Your task to perform on an android device: Go to calendar. Show me events next week Image 0: 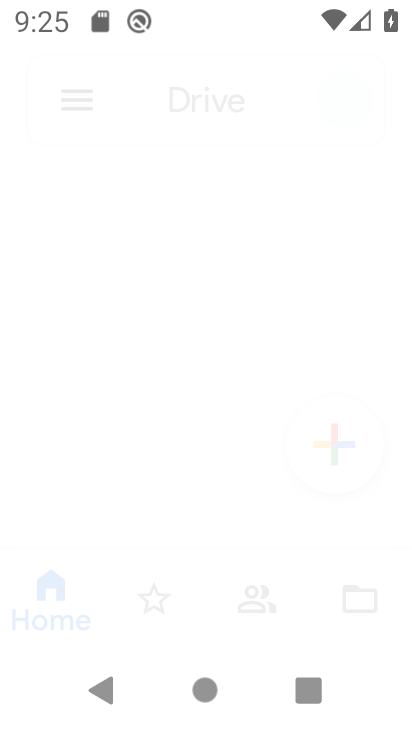
Step 0: drag from (365, 543) to (329, 175)
Your task to perform on an android device: Go to calendar. Show me events next week Image 1: 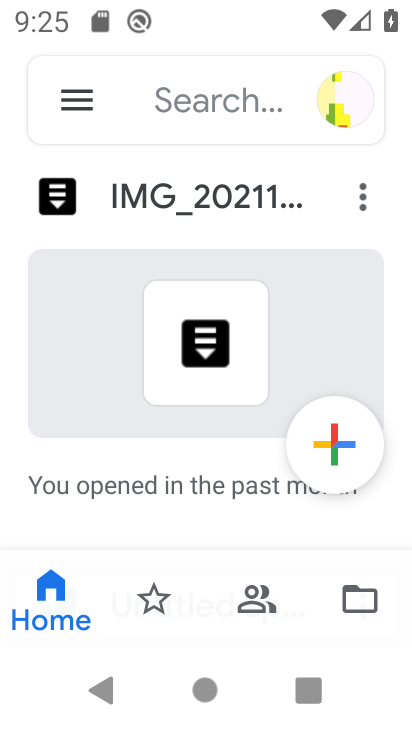
Step 1: press home button
Your task to perform on an android device: Go to calendar. Show me events next week Image 2: 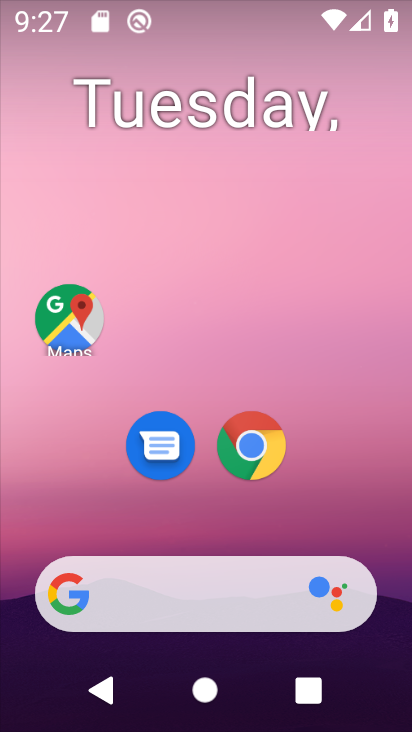
Step 2: drag from (31, 224) to (384, 147)
Your task to perform on an android device: Go to calendar. Show me events next week Image 3: 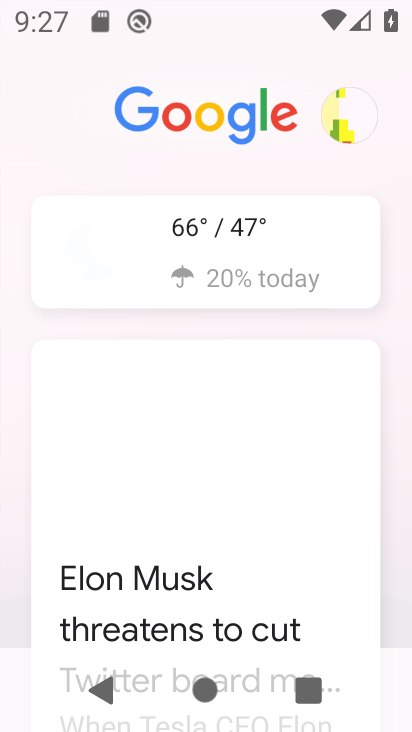
Step 3: press back button
Your task to perform on an android device: Go to calendar. Show me events next week Image 4: 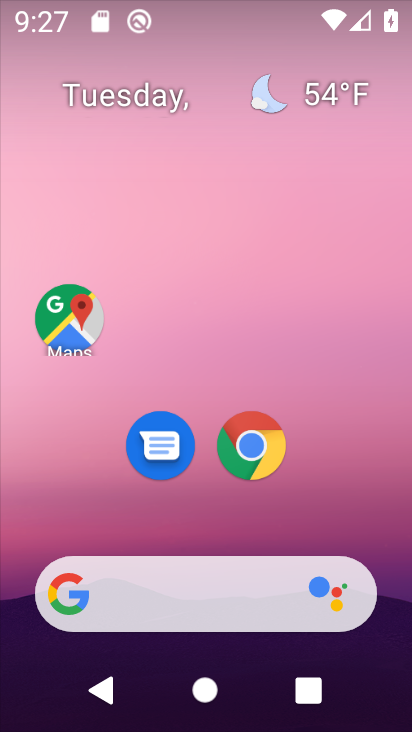
Step 4: drag from (5, 233) to (369, 270)
Your task to perform on an android device: Go to calendar. Show me events next week Image 5: 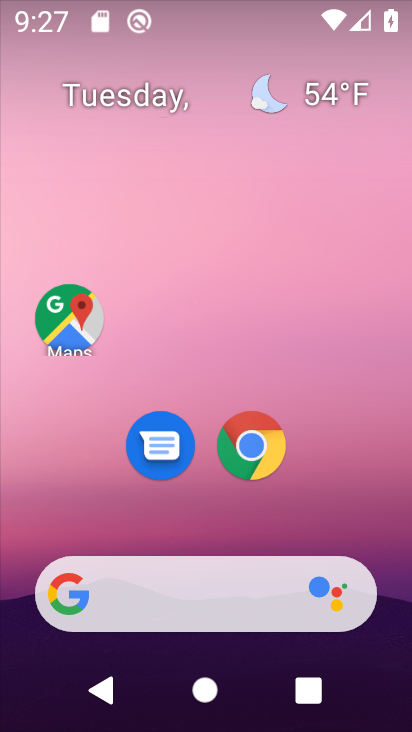
Step 5: click (401, 227)
Your task to perform on an android device: Go to calendar. Show me events next week Image 6: 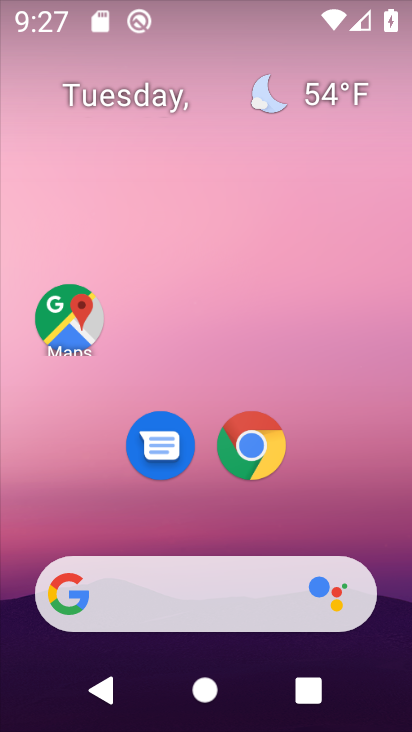
Step 6: drag from (382, 372) to (365, 94)
Your task to perform on an android device: Go to calendar. Show me events next week Image 7: 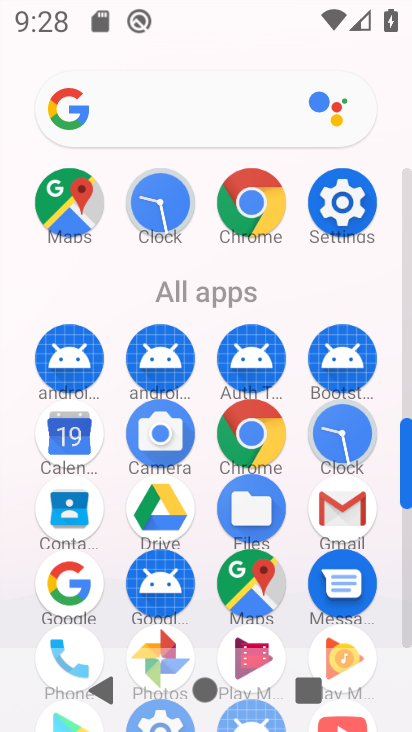
Step 7: click (62, 436)
Your task to perform on an android device: Go to calendar. Show me events next week Image 8: 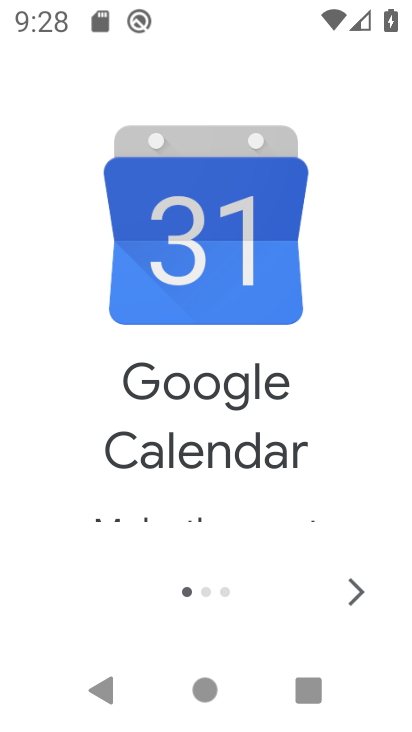
Step 8: click (346, 587)
Your task to perform on an android device: Go to calendar. Show me events next week Image 9: 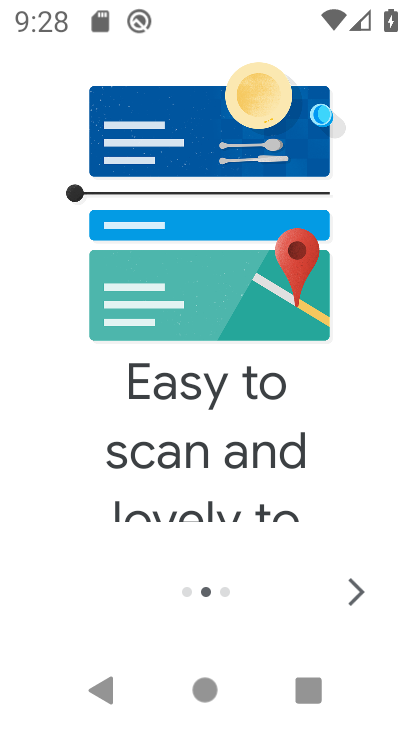
Step 9: click (346, 587)
Your task to perform on an android device: Go to calendar. Show me events next week Image 10: 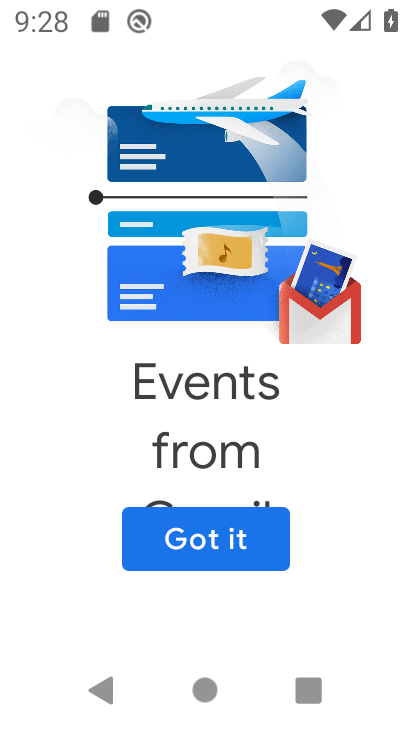
Step 10: click (251, 545)
Your task to perform on an android device: Go to calendar. Show me events next week Image 11: 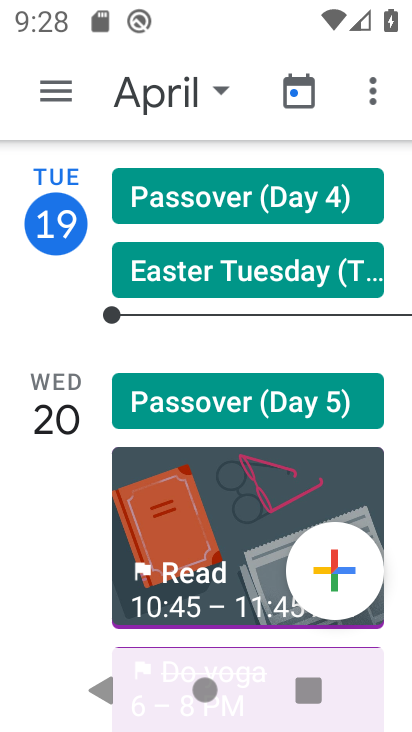
Step 11: click (214, 91)
Your task to perform on an android device: Go to calendar. Show me events next week Image 12: 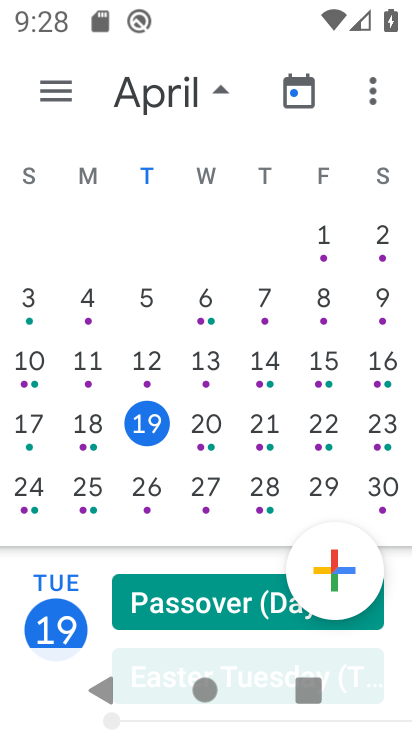
Step 12: click (151, 483)
Your task to perform on an android device: Go to calendar. Show me events next week Image 13: 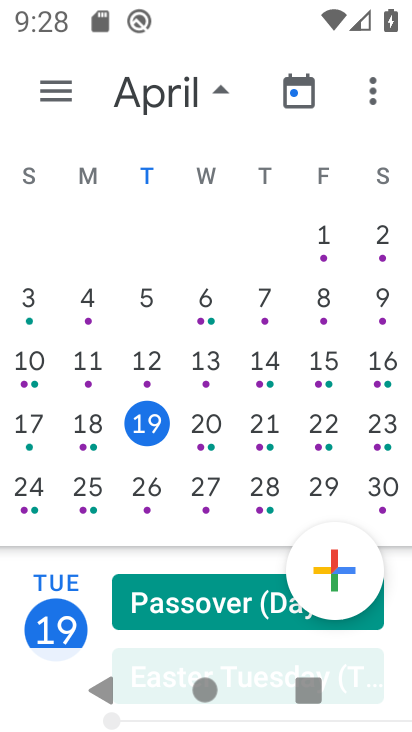
Step 13: click (144, 486)
Your task to perform on an android device: Go to calendar. Show me events next week Image 14: 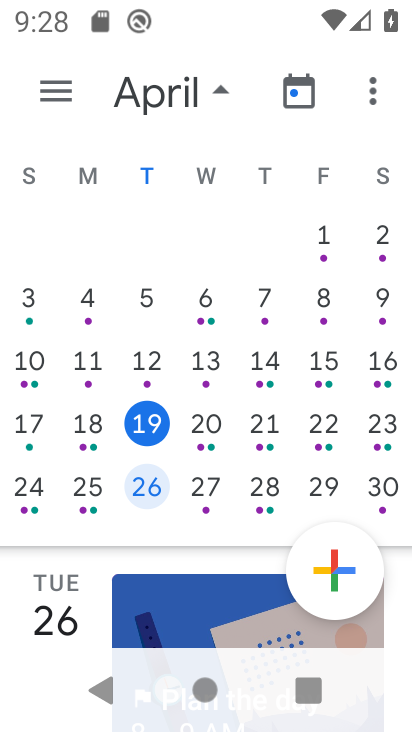
Step 14: task complete